Your task to perform on an android device: check data usage Image 0: 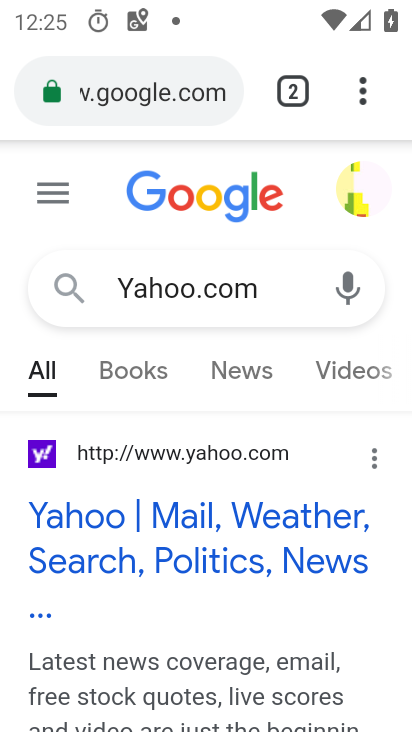
Step 0: press home button
Your task to perform on an android device: check data usage Image 1: 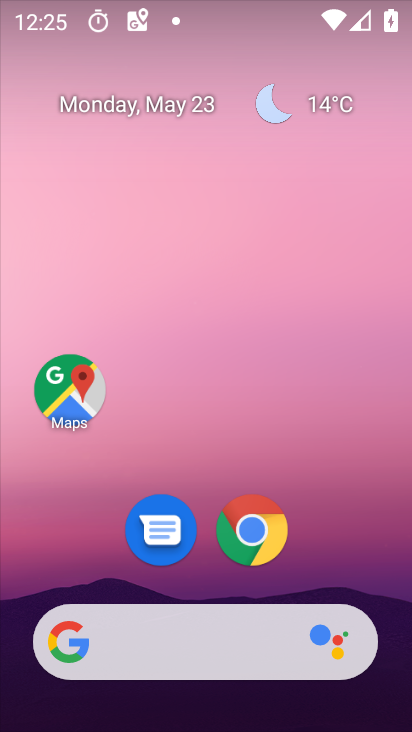
Step 1: drag from (389, 630) to (352, 355)
Your task to perform on an android device: check data usage Image 2: 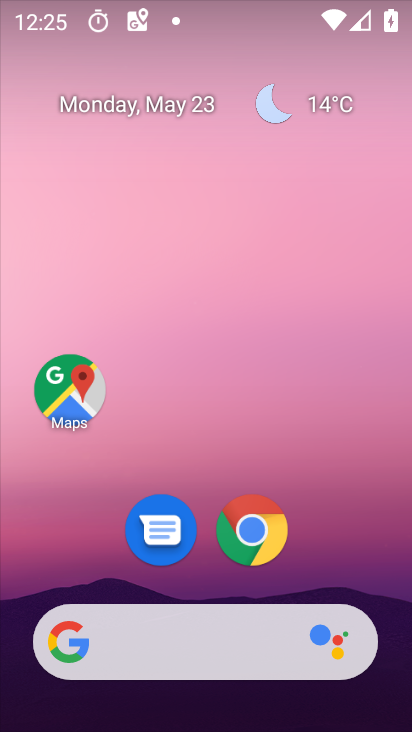
Step 2: drag from (401, 691) to (411, 199)
Your task to perform on an android device: check data usage Image 3: 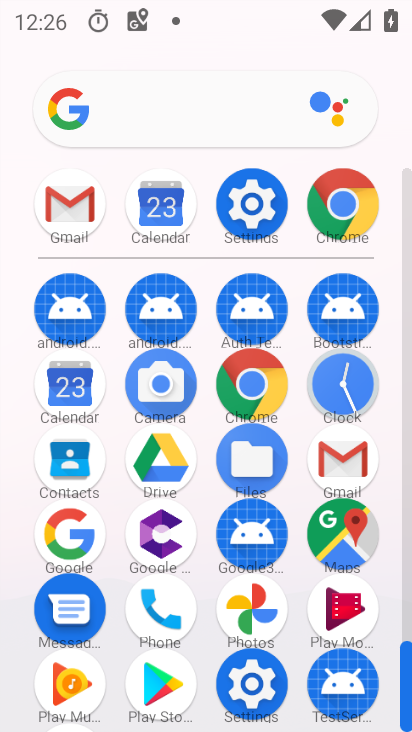
Step 3: click (235, 201)
Your task to perform on an android device: check data usage Image 4: 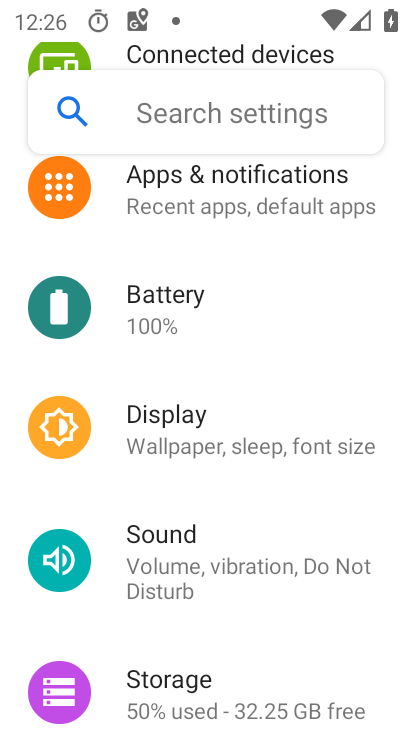
Step 4: drag from (390, 157) to (275, 558)
Your task to perform on an android device: check data usage Image 5: 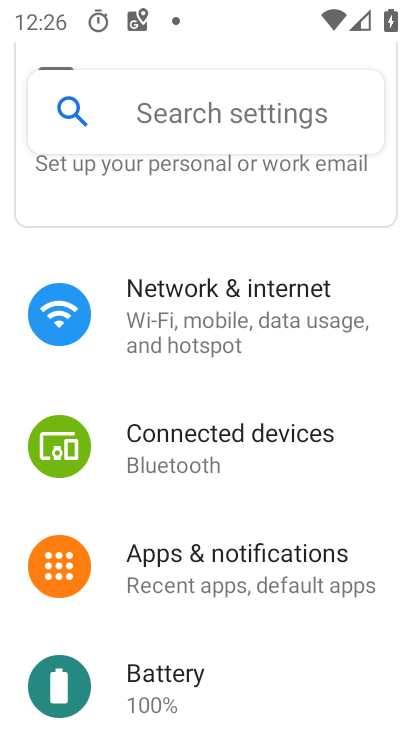
Step 5: click (236, 307)
Your task to perform on an android device: check data usage Image 6: 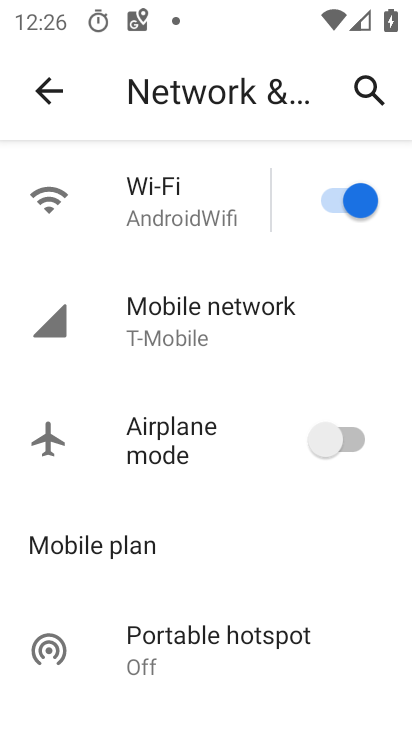
Step 6: click (142, 307)
Your task to perform on an android device: check data usage Image 7: 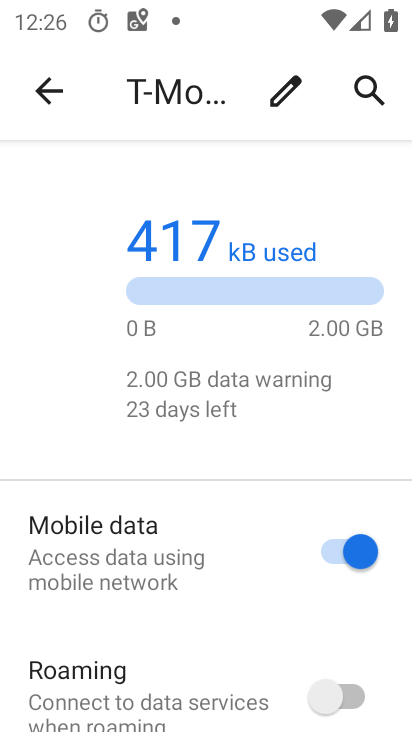
Step 7: task complete